Your task to perform on an android device: Open Google Chrome Image 0: 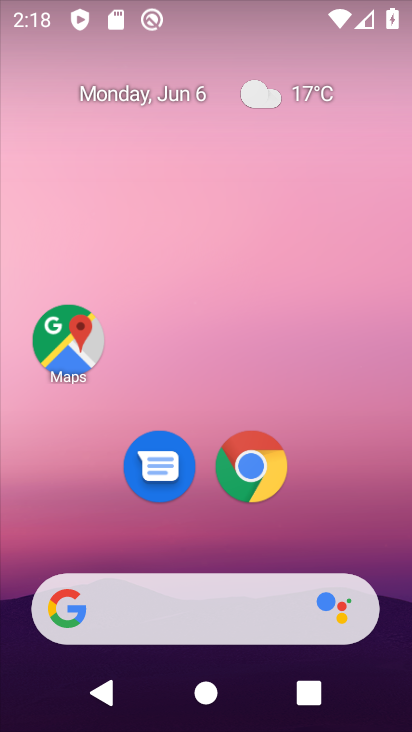
Step 0: click (271, 483)
Your task to perform on an android device: Open Google Chrome Image 1: 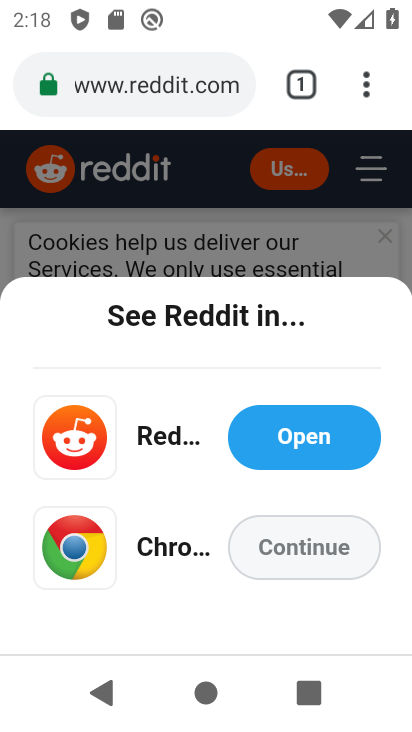
Step 1: task complete